Your task to perform on an android device: turn off javascript in the chrome app Image 0: 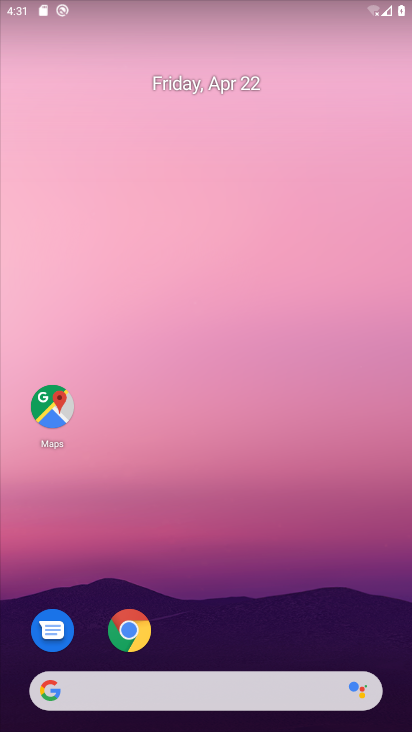
Step 0: click (131, 634)
Your task to perform on an android device: turn off javascript in the chrome app Image 1: 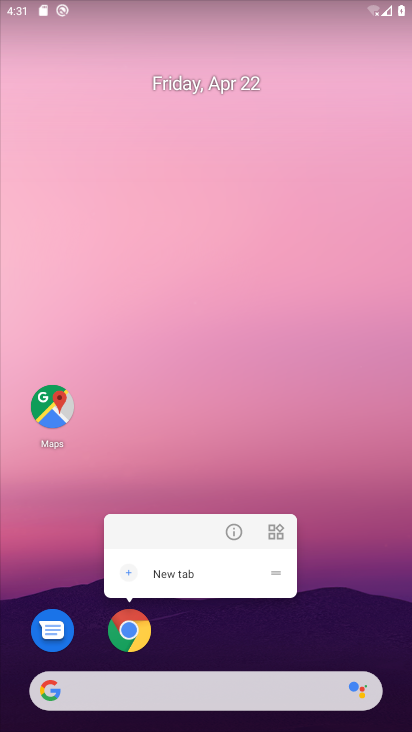
Step 1: click (123, 639)
Your task to perform on an android device: turn off javascript in the chrome app Image 2: 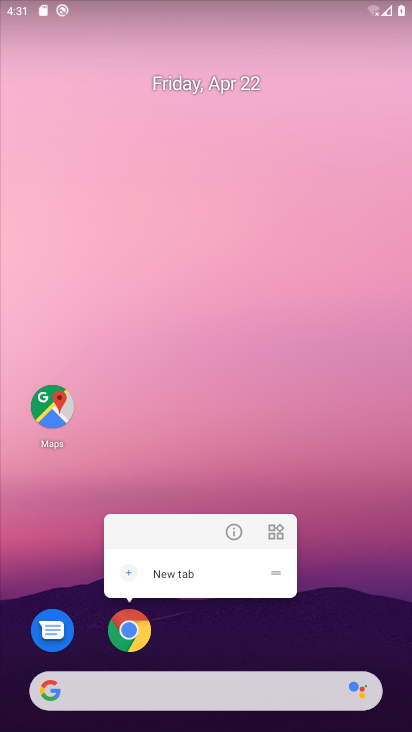
Step 2: click (124, 639)
Your task to perform on an android device: turn off javascript in the chrome app Image 3: 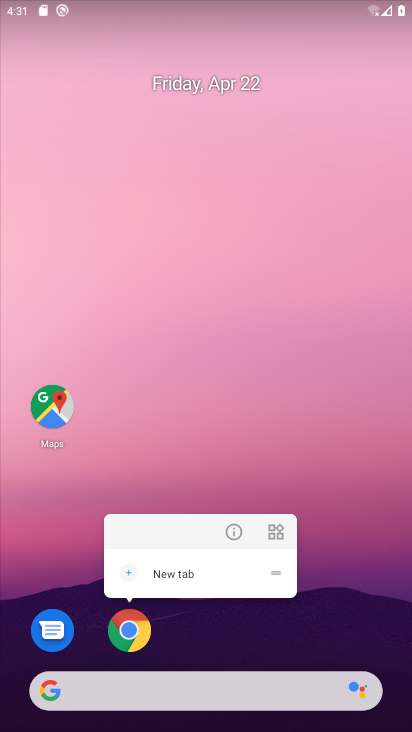
Step 3: click (123, 627)
Your task to perform on an android device: turn off javascript in the chrome app Image 4: 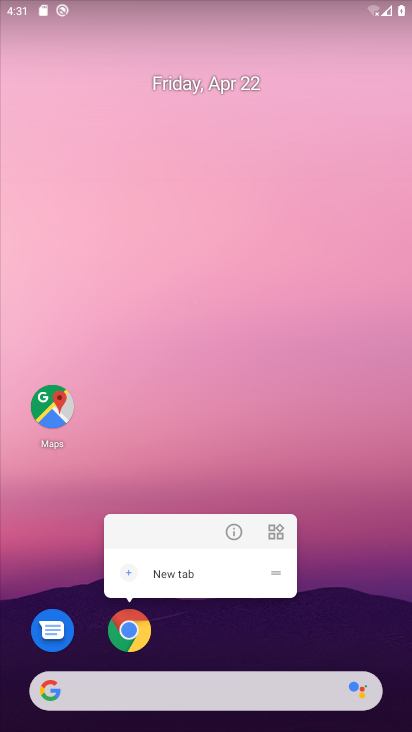
Step 4: click (123, 627)
Your task to perform on an android device: turn off javascript in the chrome app Image 5: 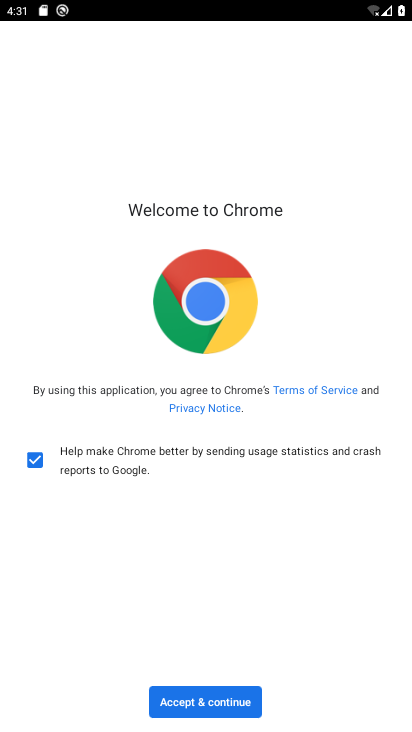
Step 5: click (180, 704)
Your task to perform on an android device: turn off javascript in the chrome app Image 6: 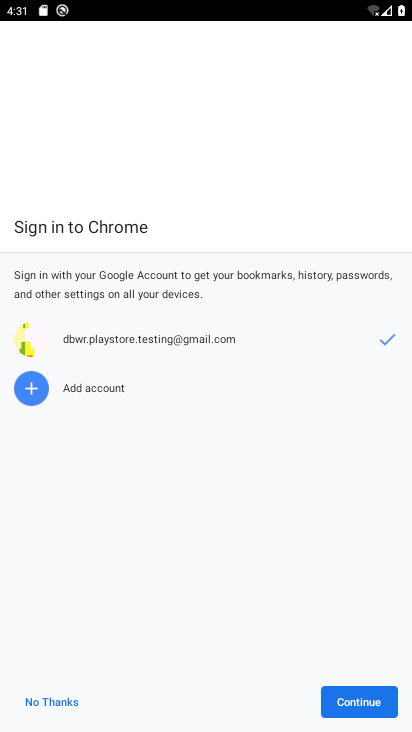
Step 6: click (354, 708)
Your task to perform on an android device: turn off javascript in the chrome app Image 7: 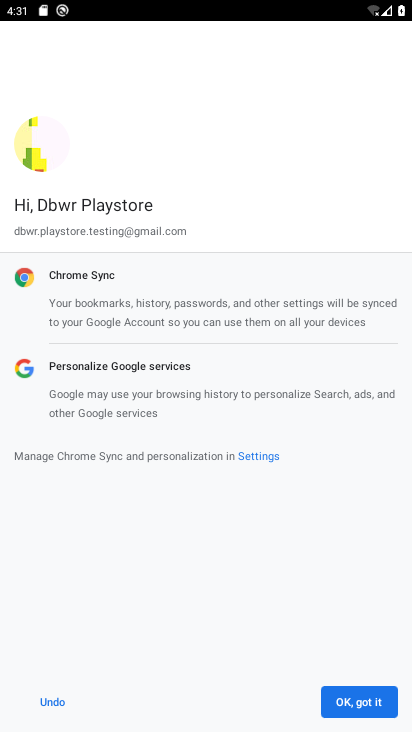
Step 7: click (356, 703)
Your task to perform on an android device: turn off javascript in the chrome app Image 8: 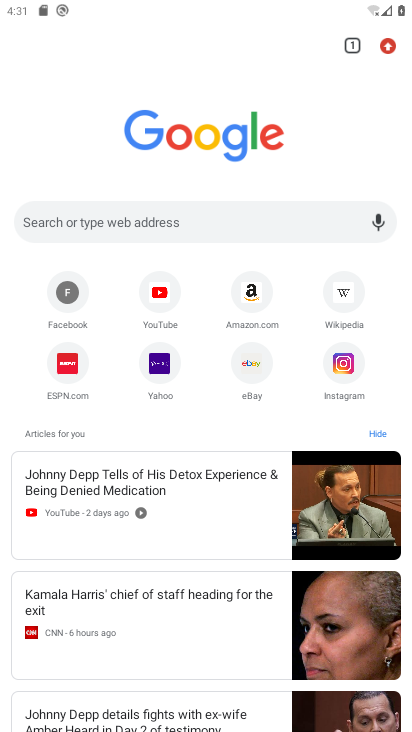
Step 8: click (382, 45)
Your task to perform on an android device: turn off javascript in the chrome app Image 9: 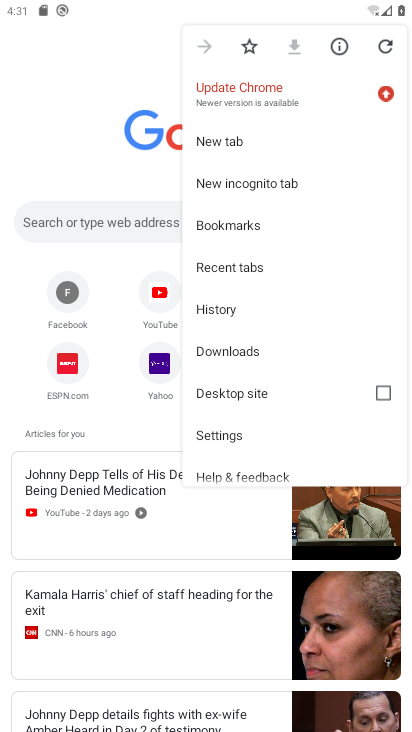
Step 9: click (258, 441)
Your task to perform on an android device: turn off javascript in the chrome app Image 10: 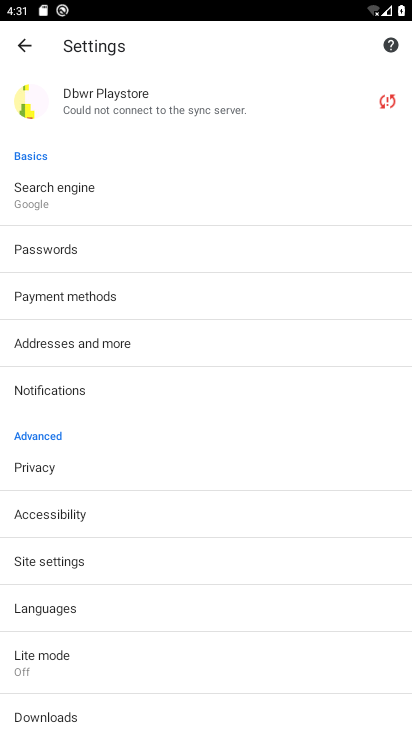
Step 10: click (92, 567)
Your task to perform on an android device: turn off javascript in the chrome app Image 11: 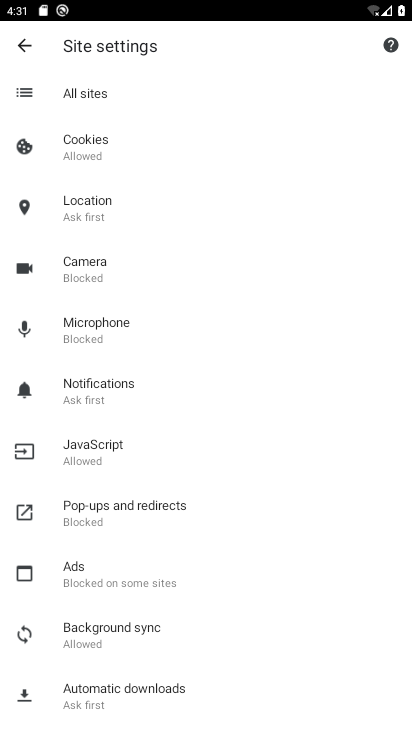
Step 11: click (119, 459)
Your task to perform on an android device: turn off javascript in the chrome app Image 12: 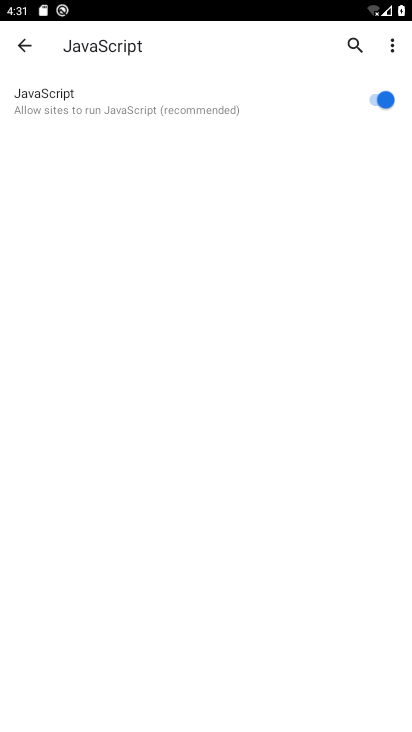
Step 12: click (380, 101)
Your task to perform on an android device: turn off javascript in the chrome app Image 13: 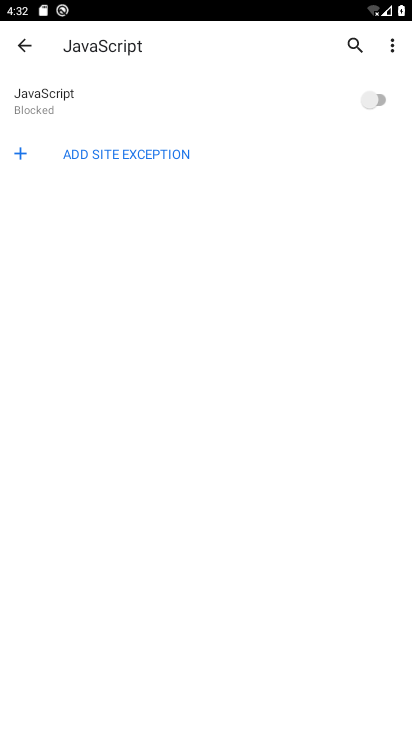
Step 13: task complete